Your task to perform on an android device: star an email in the gmail app Image 0: 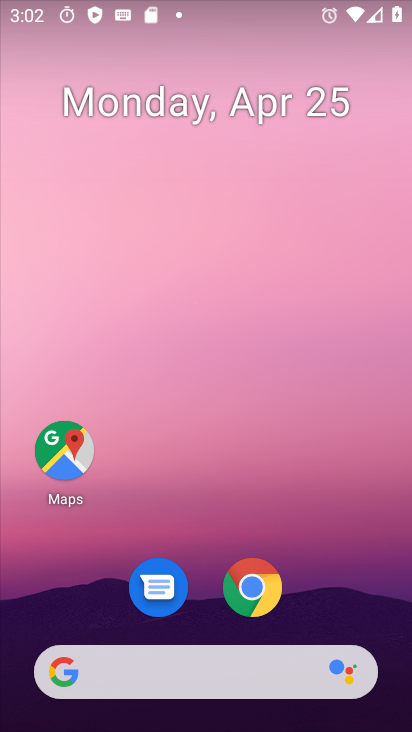
Step 0: drag from (334, 586) to (281, 163)
Your task to perform on an android device: star an email in the gmail app Image 1: 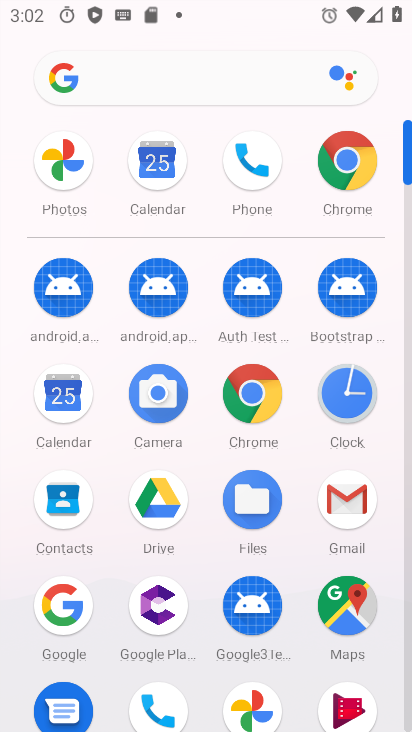
Step 1: click (350, 488)
Your task to perform on an android device: star an email in the gmail app Image 2: 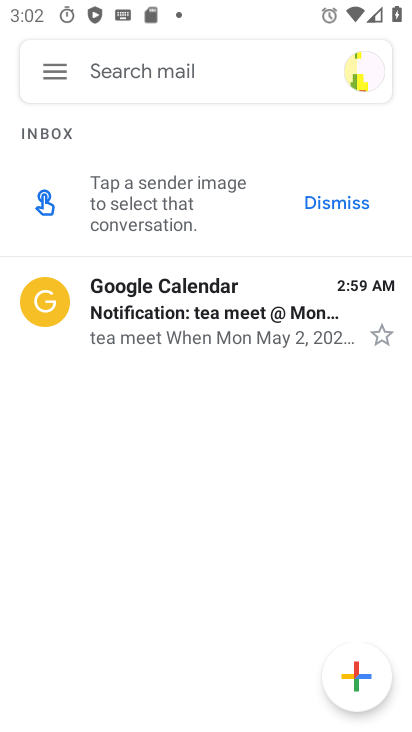
Step 2: click (378, 335)
Your task to perform on an android device: star an email in the gmail app Image 3: 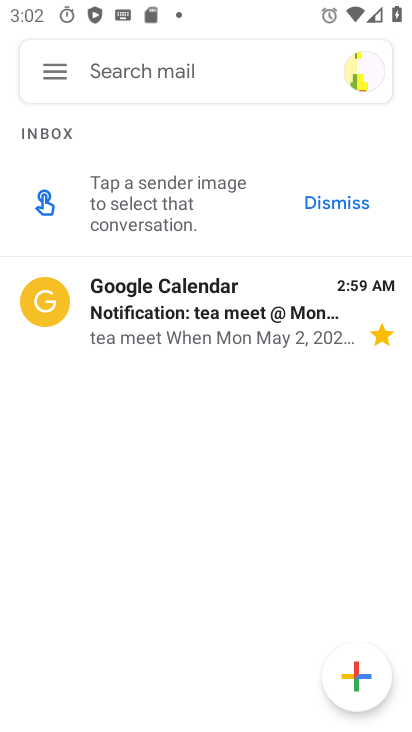
Step 3: task complete